Your task to perform on an android device: turn vacation reply on in the gmail app Image 0: 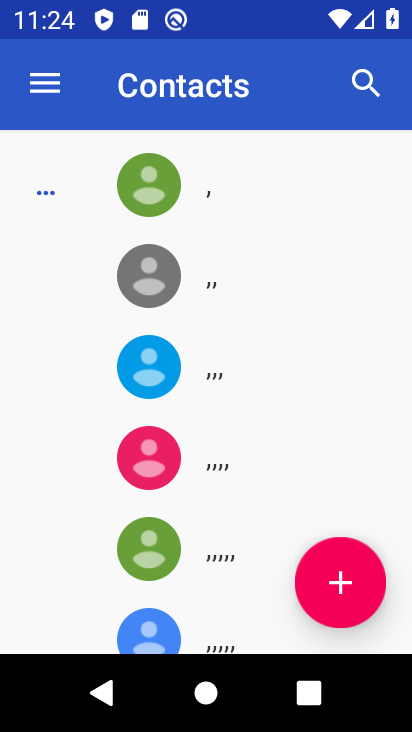
Step 0: press home button
Your task to perform on an android device: turn vacation reply on in the gmail app Image 1: 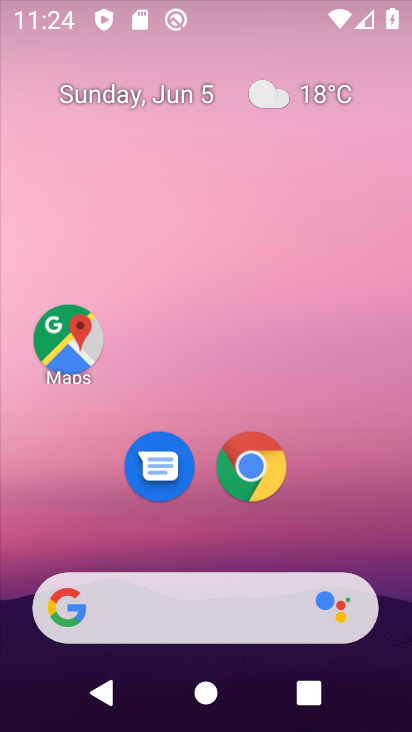
Step 1: drag from (354, 547) to (349, 157)
Your task to perform on an android device: turn vacation reply on in the gmail app Image 2: 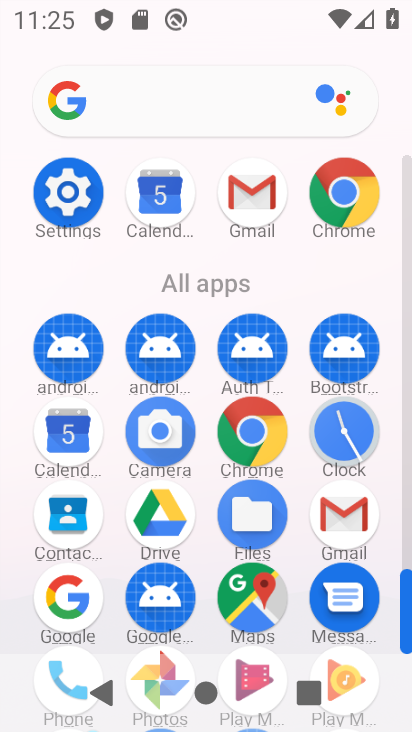
Step 2: click (357, 517)
Your task to perform on an android device: turn vacation reply on in the gmail app Image 3: 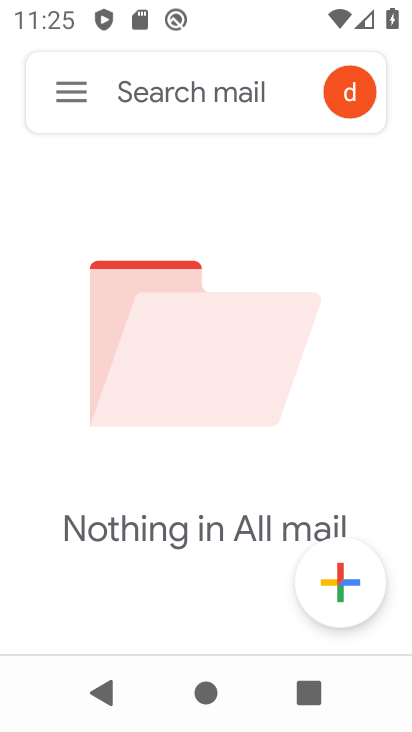
Step 3: drag from (44, 101) to (83, 116)
Your task to perform on an android device: turn vacation reply on in the gmail app Image 4: 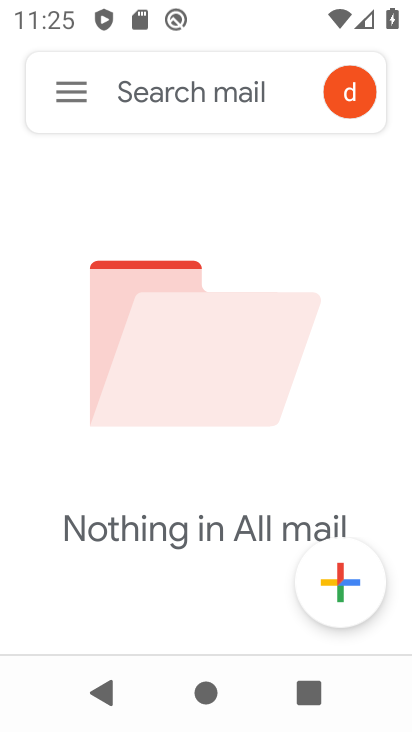
Step 4: click (67, 91)
Your task to perform on an android device: turn vacation reply on in the gmail app Image 5: 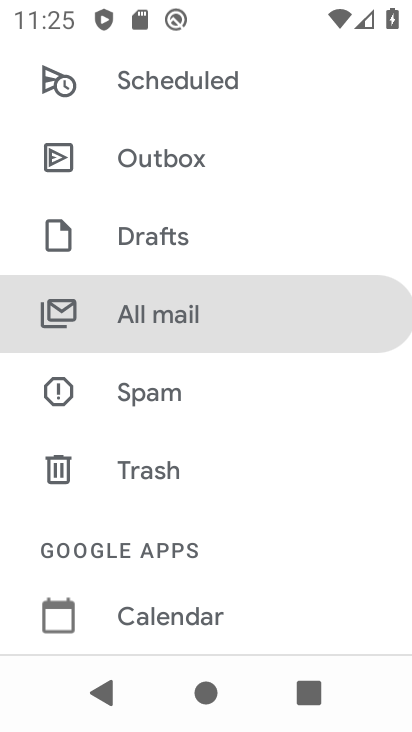
Step 5: drag from (176, 602) to (240, 206)
Your task to perform on an android device: turn vacation reply on in the gmail app Image 6: 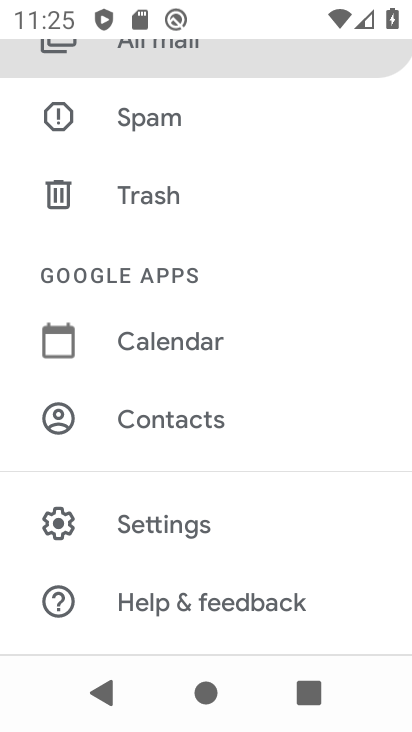
Step 6: click (179, 536)
Your task to perform on an android device: turn vacation reply on in the gmail app Image 7: 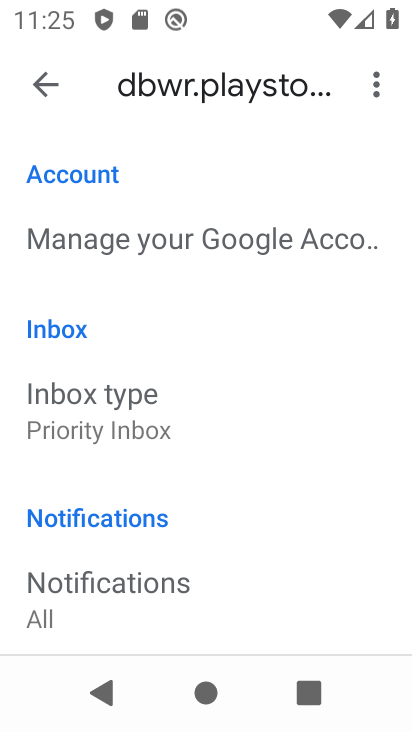
Step 7: task complete